Your task to perform on an android device: see sites visited before in the chrome app Image 0: 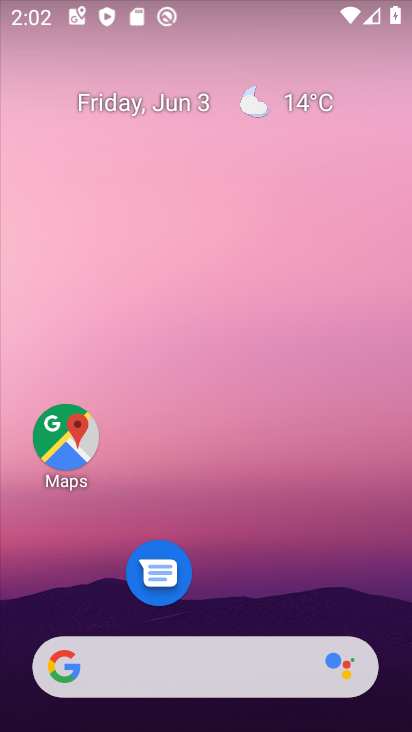
Step 0: drag from (314, 606) to (326, 44)
Your task to perform on an android device: see sites visited before in the chrome app Image 1: 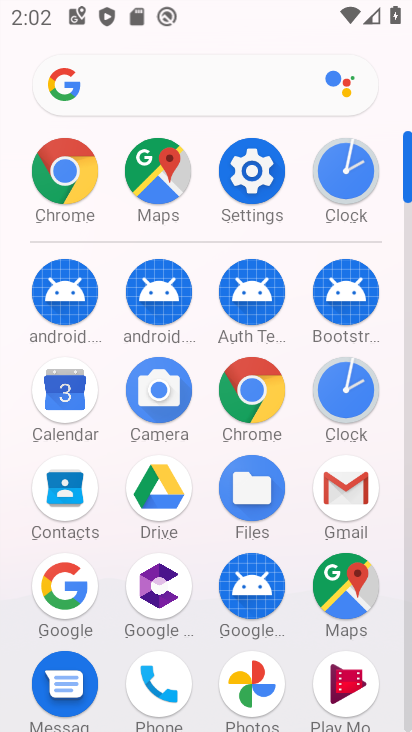
Step 1: click (257, 395)
Your task to perform on an android device: see sites visited before in the chrome app Image 2: 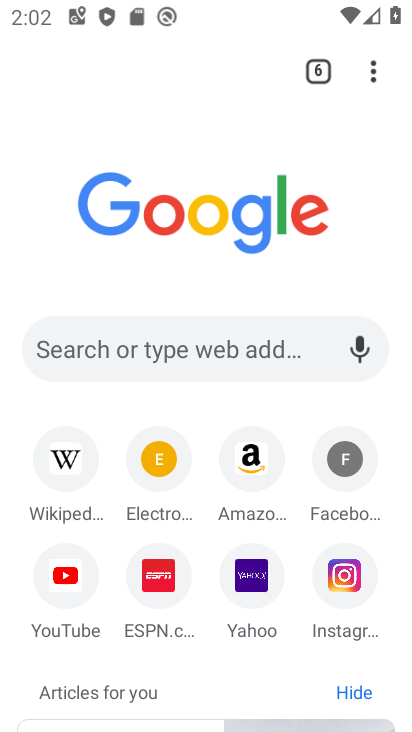
Step 2: task complete